Your task to perform on an android device: turn on priority inbox in the gmail app Image 0: 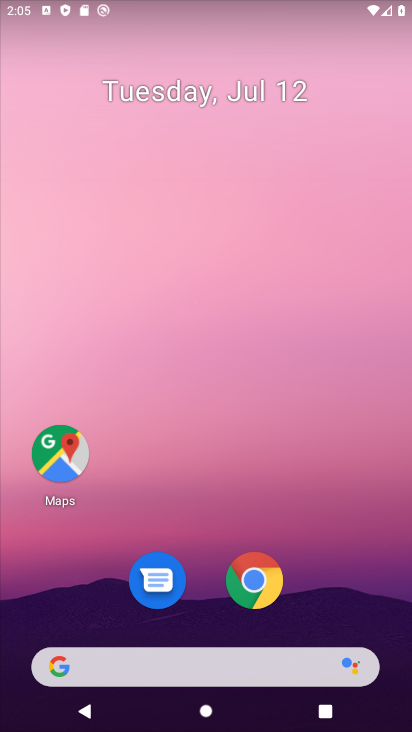
Step 0: drag from (190, 605) to (164, 54)
Your task to perform on an android device: turn on priority inbox in the gmail app Image 1: 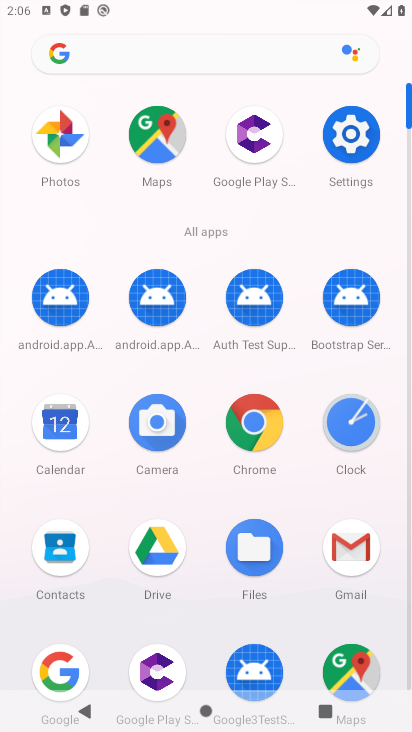
Step 1: click (363, 537)
Your task to perform on an android device: turn on priority inbox in the gmail app Image 2: 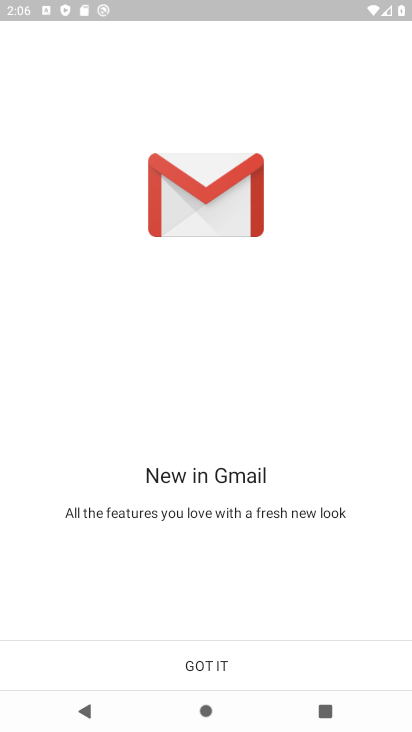
Step 2: click (210, 659)
Your task to perform on an android device: turn on priority inbox in the gmail app Image 3: 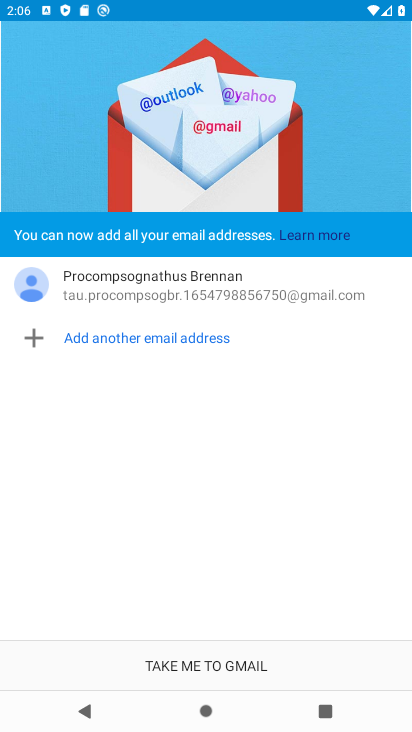
Step 3: click (210, 659)
Your task to perform on an android device: turn on priority inbox in the gmail app Image 4: 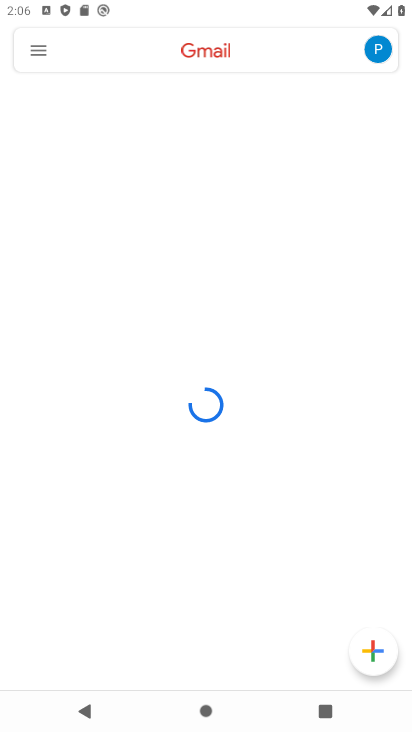
Step 4: click (30, 34)
Your task to perform on an android device: turn on priority inbox in the gmail app Image 5: 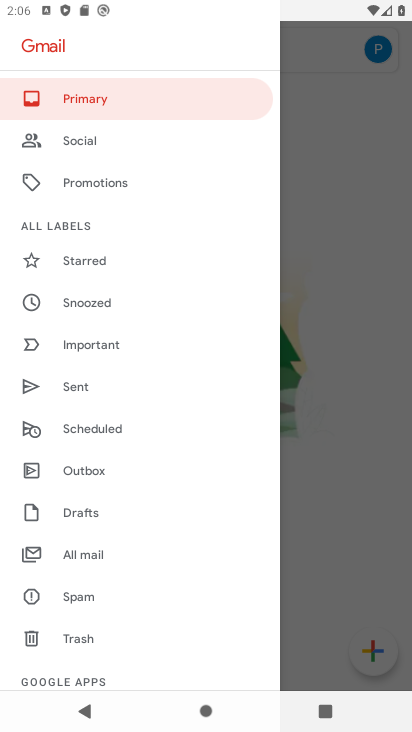
Step 5: drag from (81, 650) to (161, 179)
Your task to perform on an android device: turn on priority inbox in the gmail app Image 6: 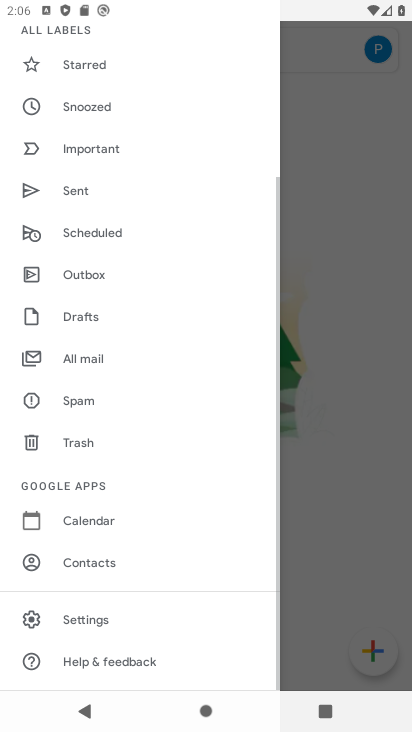
Step 6: click (80, 614)
Your task to perform on an android device: turn on priority inbox in the gmail app Image 7: 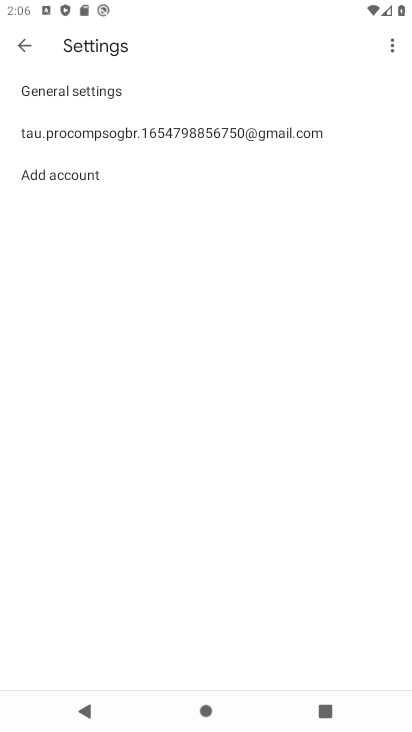
Step 7: click (235, 128)
Your task to perform on an android device: turn on priority inbox in the gmail app Image 8: 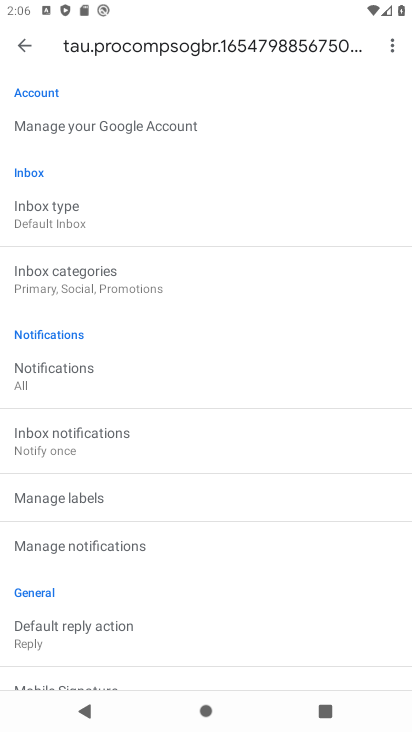
Step 8: click (90, 207)
Your task to perform on an android device: turn on priority inbox in the gmail app Image 9: 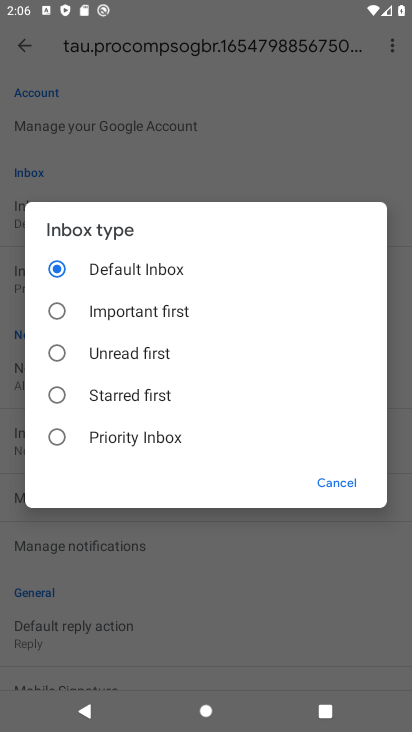
Step 9: click (137, 432)
Your task to perform on an android device: turn on priority inbox in the gmail app Image 10: 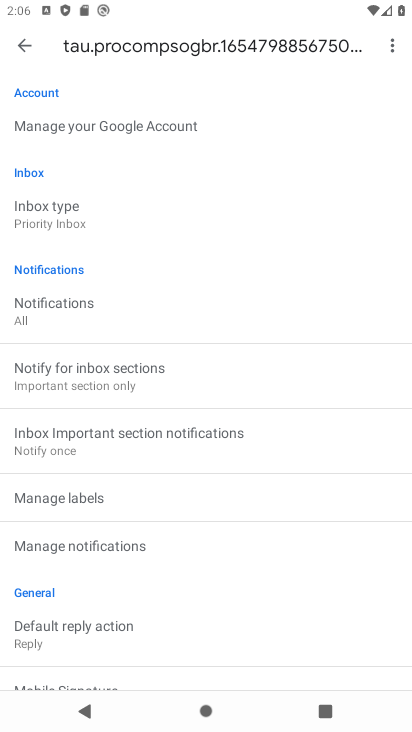
Step 10: task complete